Your task to perform on an android device: find photos in the google photos app Image 0: 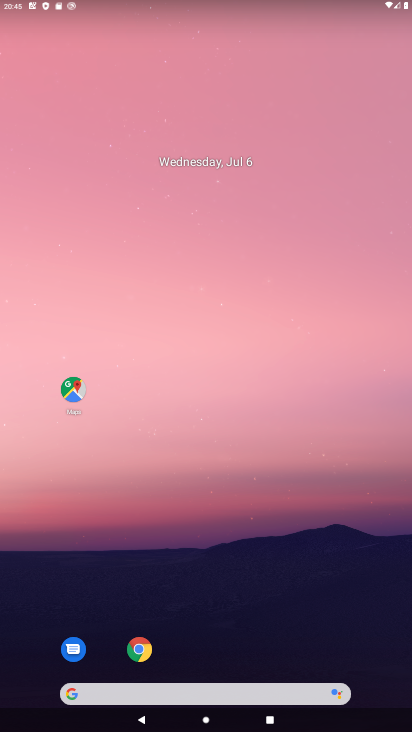
Step 0: drag from (186, 638) to (398, 5)
Your task to perform on an android device: find photos in the google photos app Image 1: 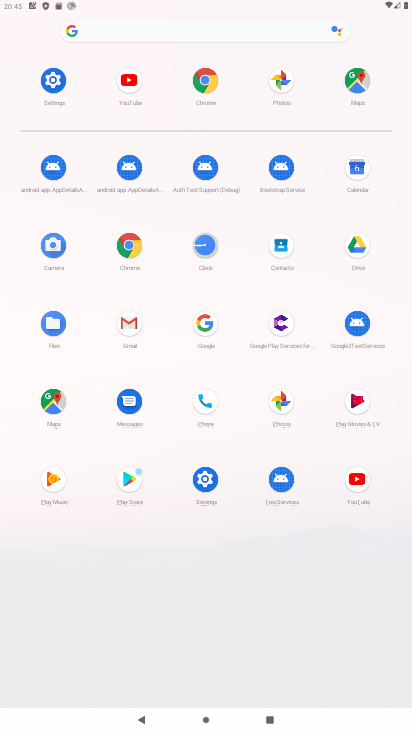
Step 1: click (286, 411)
Your task to perform on an android device: find photos in the google photos app Image 2: 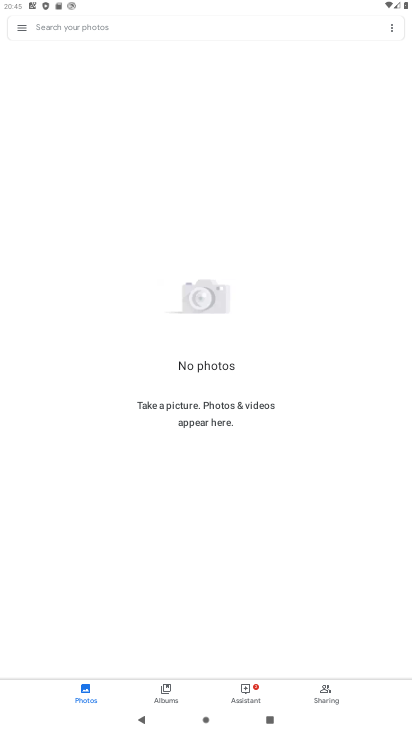
Step 2: task complete